Your task to perform on an android device: turn off wifi Image 0: 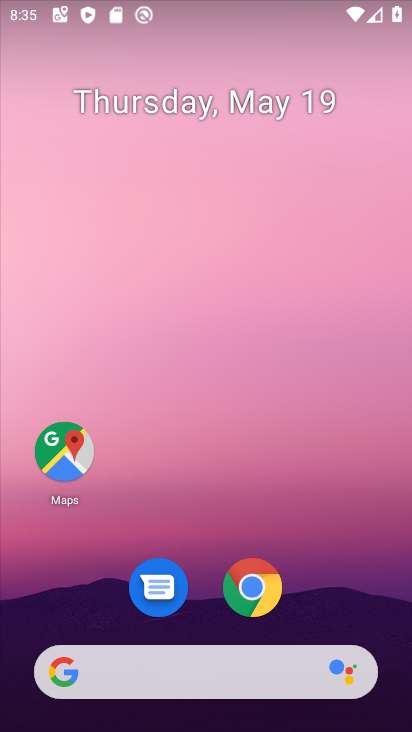
Step 0: drag from (350, 561) to (272, 53)
Your task to perform on an android device: turn off wifi Image 1: 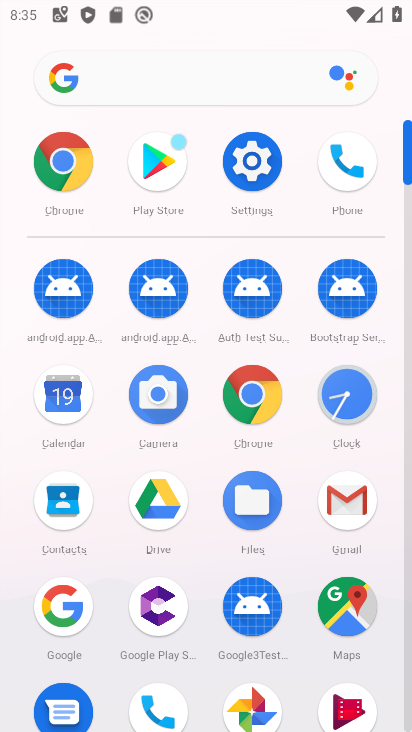
Step 1: drag from (6, 577) to (29, 334)
Your task to perform on an android device: turn off wifi Image 2: 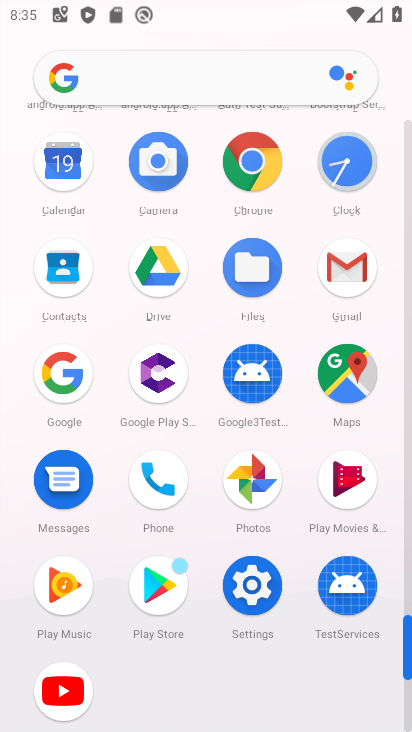
Step 2: click (254, 584)
Your task to perform on an android device: turn off wifi Image 3: 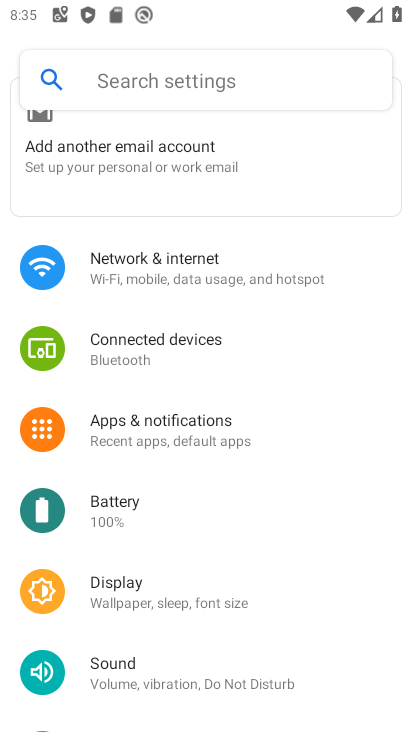
Step 3: click (196, 270)
Your task to perform on an android device: turn off wifi Image 4: 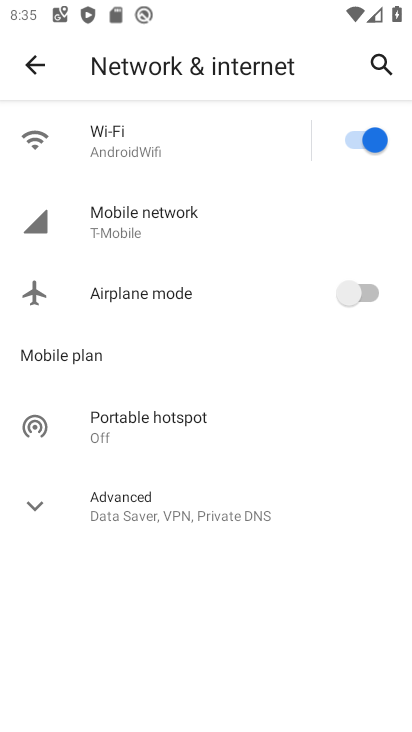
Step 4: click (368, 132)
Your task to perform on an android device: turn off wifi Image 5: 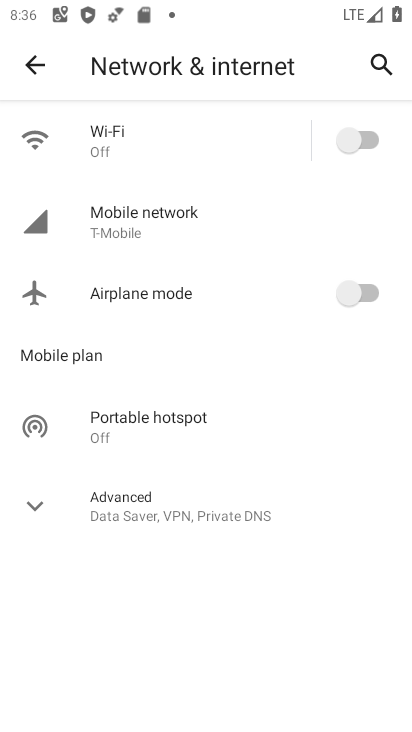
Step 5: task complete